Your task to perform on an android device: Open Amazon Image 0: 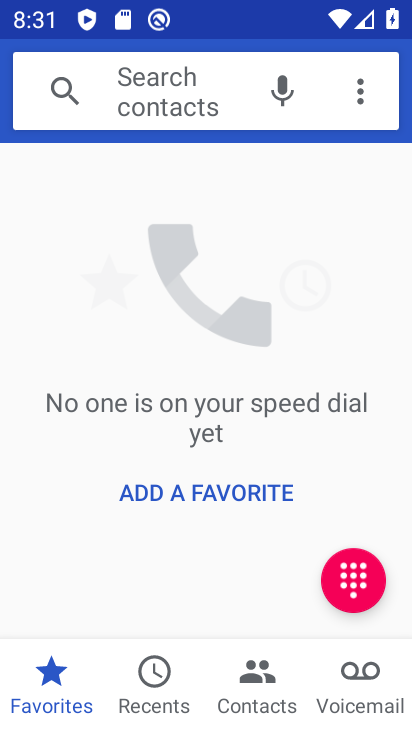
Step 0: press back button
Your task to perform on an android device: Open Amazon Image 1: 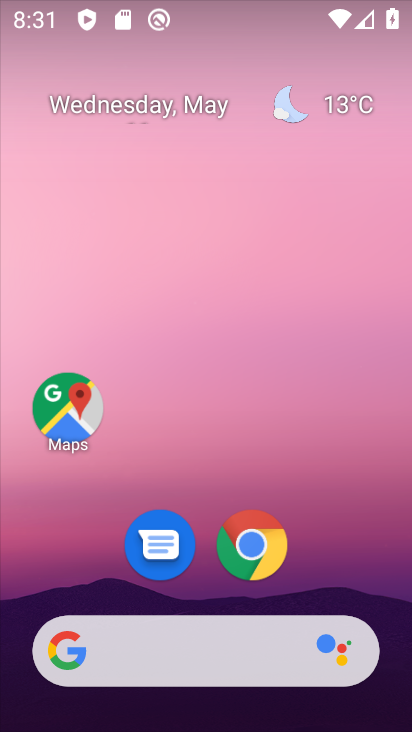
Step 1: drag from (333, 558) to (259, 15)
Your task to perform on an android device: Open Amazon Image 2: 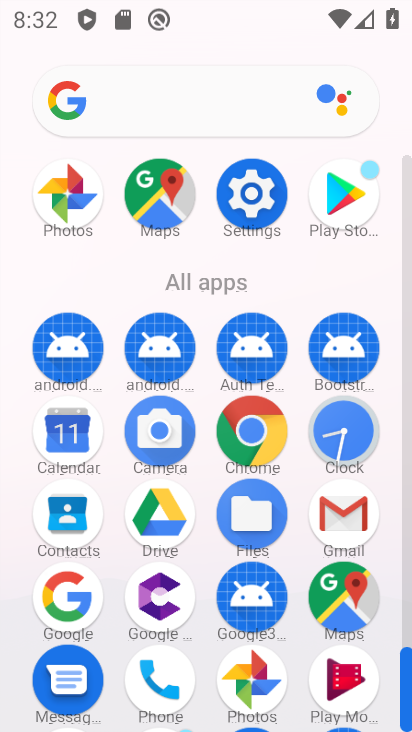
Step 2: drag from (10, 575) to (1, 248)
Your task to perform on an android device: Open Amazon Image 3: 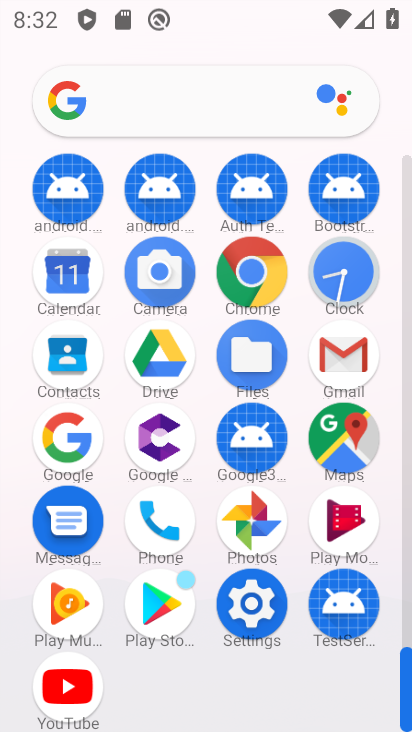
Step 3: click (249, 269)
Your task to perform on an android device: Open Amazon Image 4: 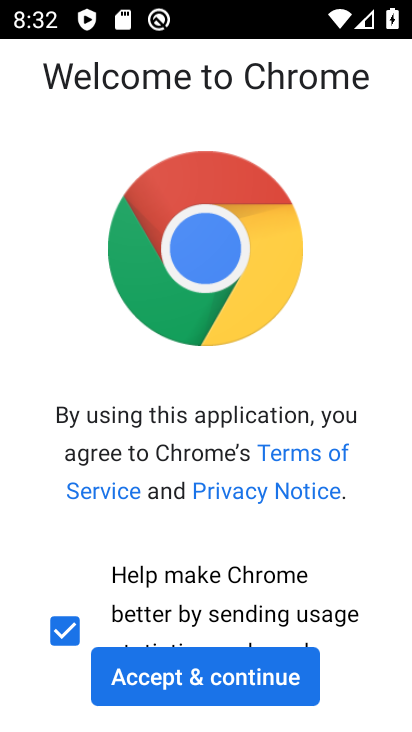
Step 4: click (256, 663)
Your task to perform on an android device: Open Amazon Image 5: 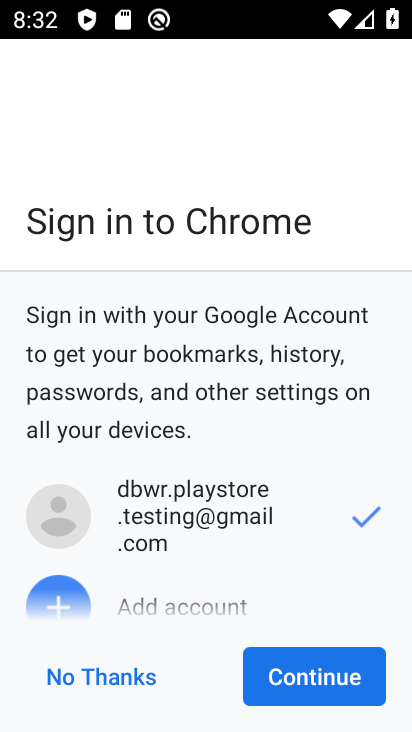
Step 5: click (288, 666)
Your task to perform on an android device: Open Amazon Image 6: 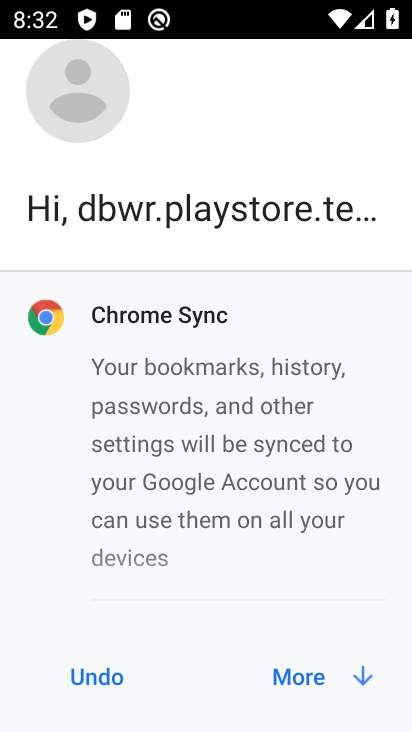
Step 6: click (292, 670)
Your task to perform on an android device: Open Amazon Image 7: 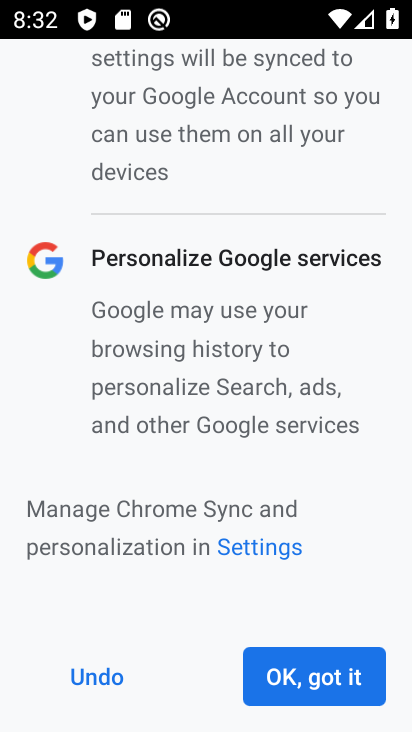
Step 7: click (292, 670)
Your task to perform on an android device: Open Amazon Image 8: 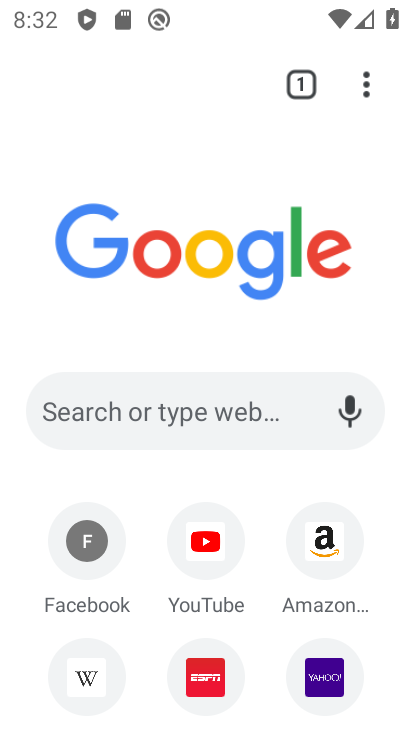
Step 8: click (317, 531)
Your task to perform on an android device: Open Amazon Image 9: 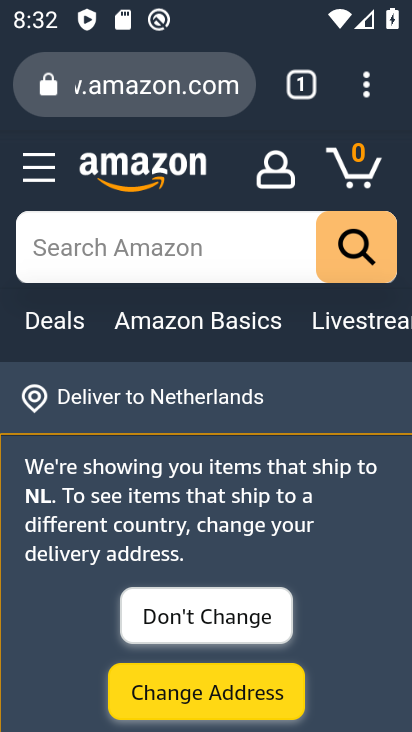
Step 9: task complete